Your task to perform on an android device: Open Maps and search for coffee Image 0: 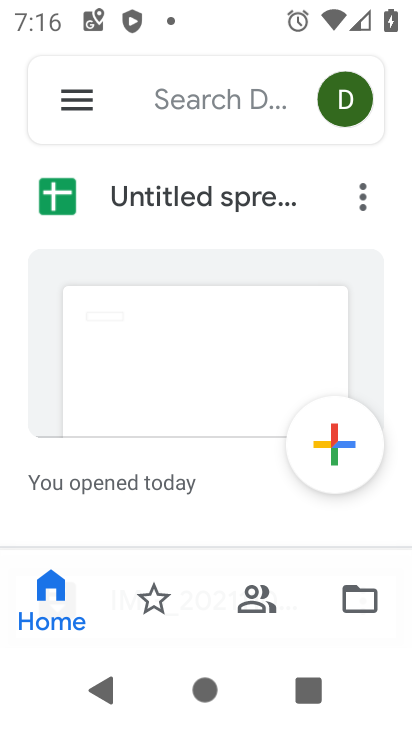
Step 0: press home button
Your task to perform on an android device: Open Maps and search for coffee Image 1: 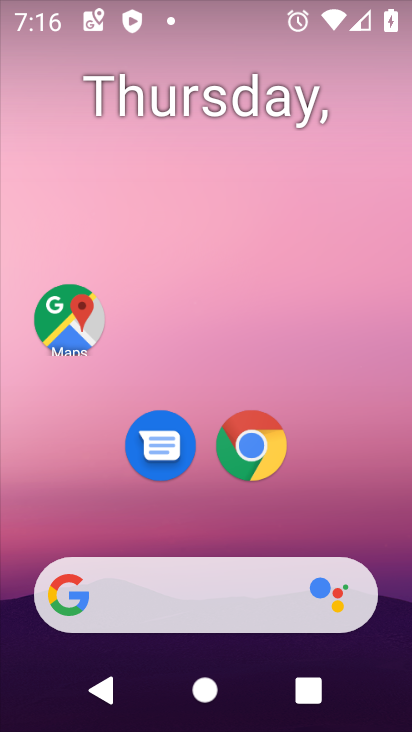
Step 1: click (61, 322)
Your task to perform on an android device: Open Maps and search for coffee Image 2: 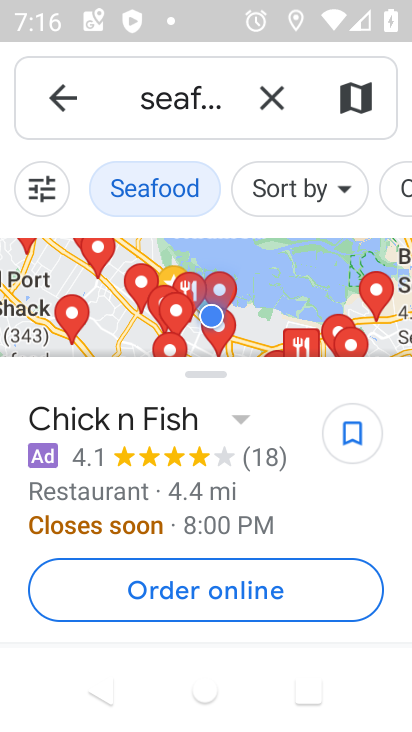
Step 2: click (266, 90)
Your task to perform on an android device: Open Maps and search for coffee Image 3: 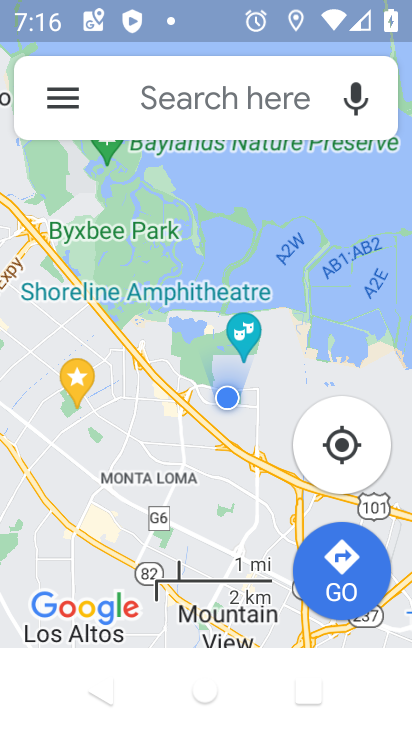
Step 3: click (213, 91)
Your task to perform on an android device: Open Maps and search for coffee Image 4: 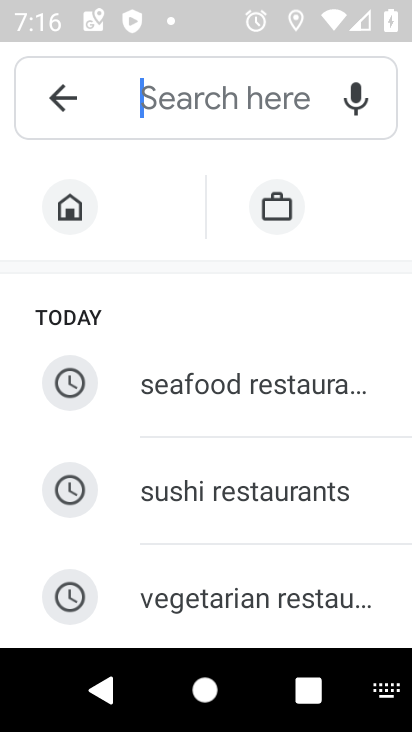
Step 4: type "coffee"
Your task to perform on an android device: Open Maps and search for coffee Image 5: 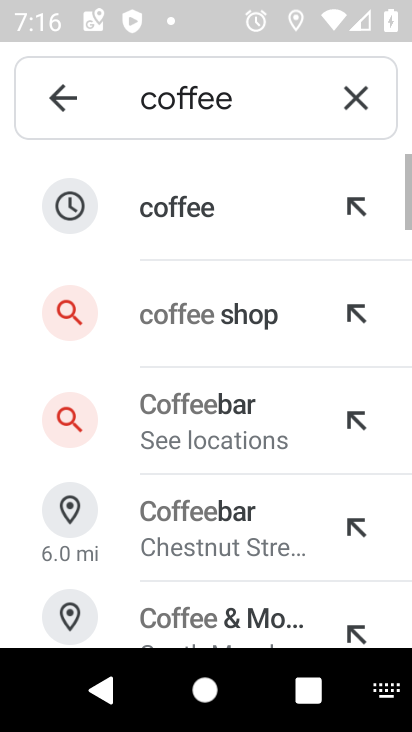
Step 5: click (161, 202)
Your task to perform on an android device: Open Maps and search for coffee Image 6: 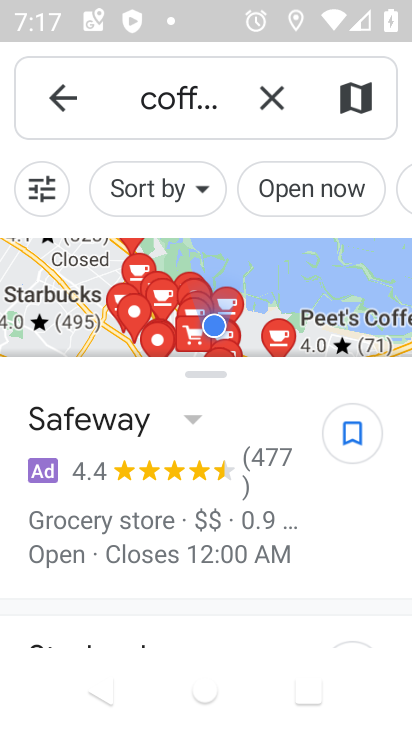
Step 6: task complete